Your task to perform on an android device: check storage Image 0: 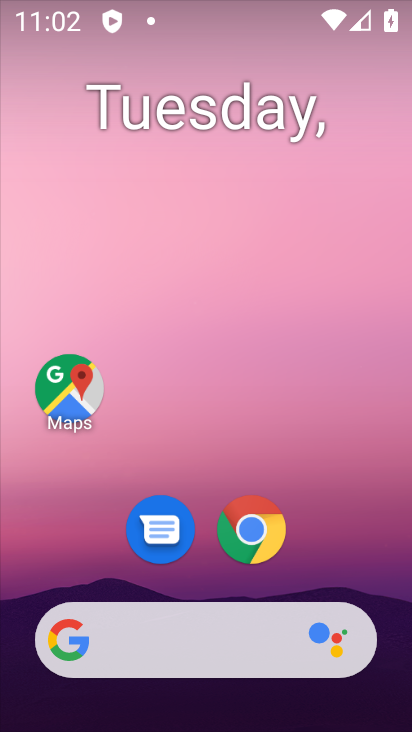
Step 0: drag from (317, 548) to (145, 216)
Your task to perform on an android device: check storage Image 1: 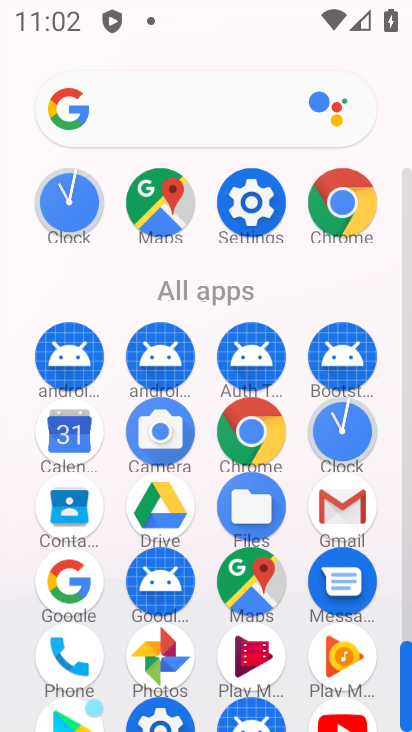
Step 1: click (249, 213)
Your task to perform on an android device: check storage Image 2: 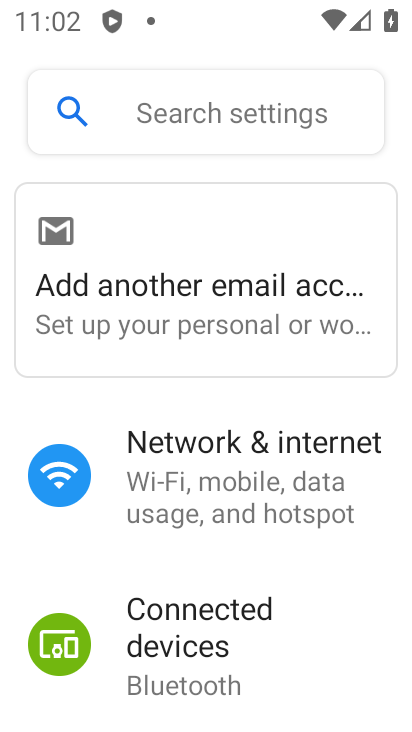
Step 2: drag from (155, 611) to (138, 170)
Your task to perform on an android device: check storage Image 3: 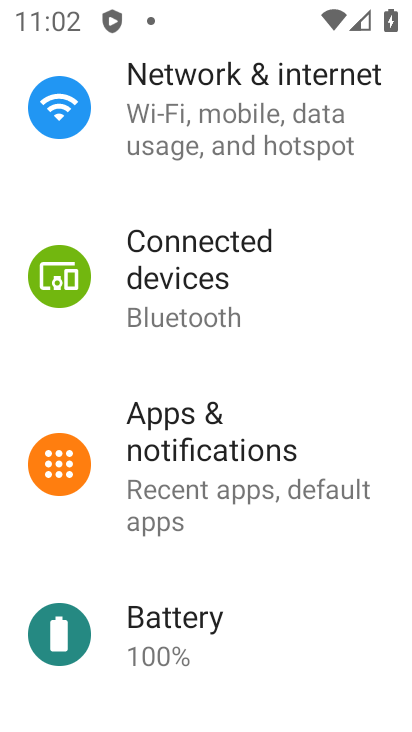
Step 3: drag from (292, 584) to (243, 70)
Your task to perform on an android device: check storage Image 4: 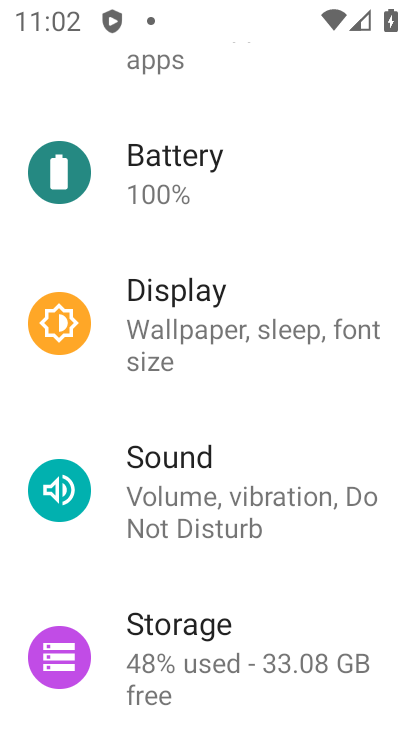
Step 4: click (183, 626)
Your task to perform on an android device: check storage Image 5: 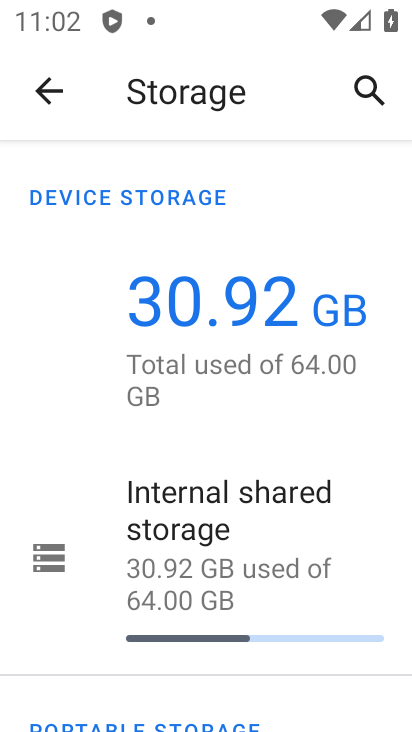
Step 5: task complete